Your task to perform on an android device: turn on airplane mode Image 0: 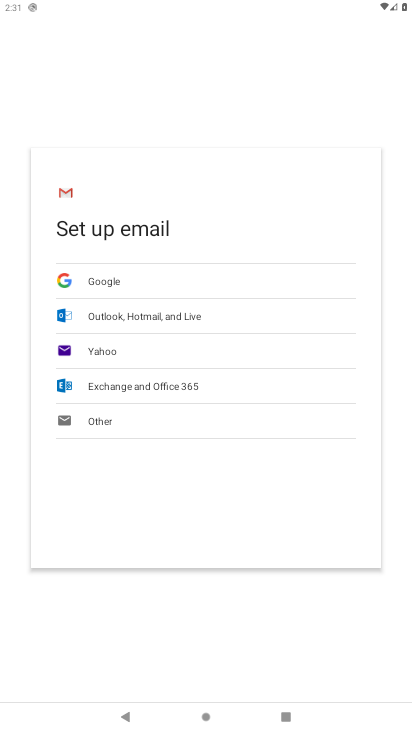
Step 0: press home button
Your task to perform on an android device: turn on airplane mode Image 1: 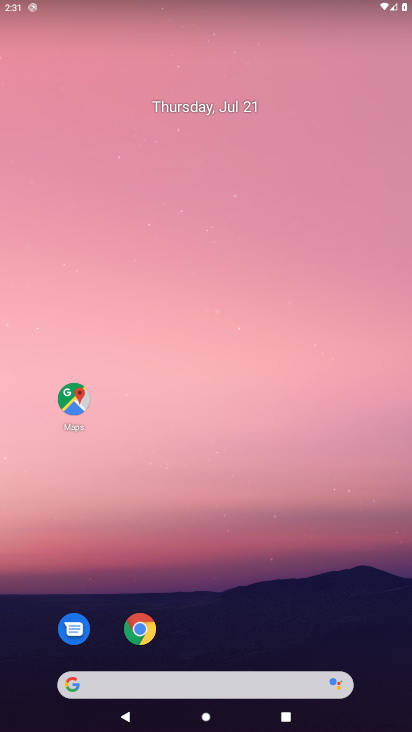
Step 1: drag from (110, 450) to (190, 112)
Your task to perform on an android device: turn on airplane mode Image 2: 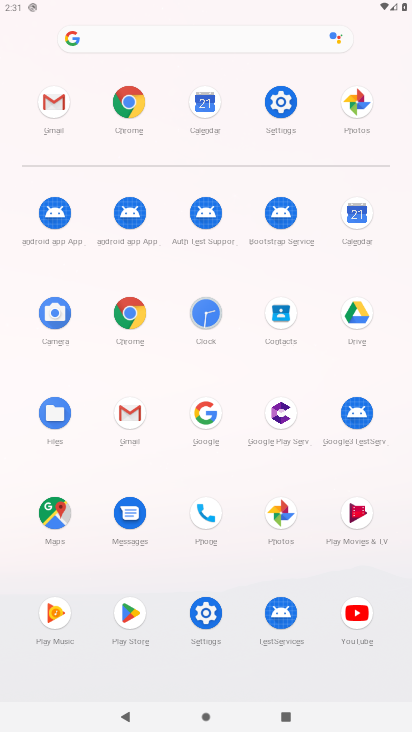
Step 2: click (204, 617)
Your task to perform on an android device: turn on airplane mode Image 3: 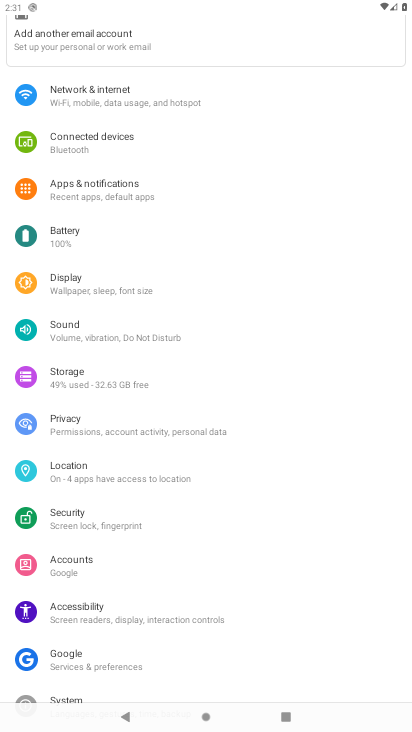
Step 3: click (89, 90)
Your task to perform on an android device: turn on airplane mode Image 4: 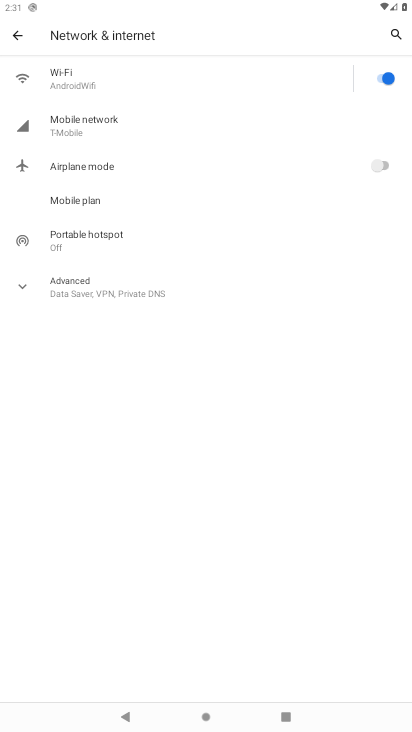
Step 4: click (382, 162)
Your task to perform on an android device: turn on airplane mode Image 5: 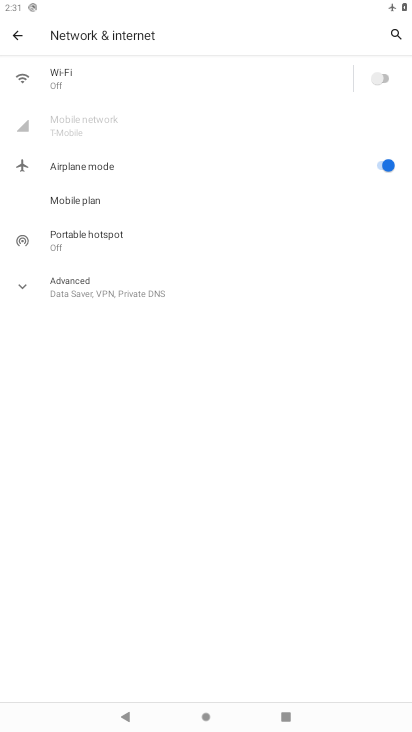
Step 5: task complete